Your task to perform on an android device: Show me recent news Image 0: 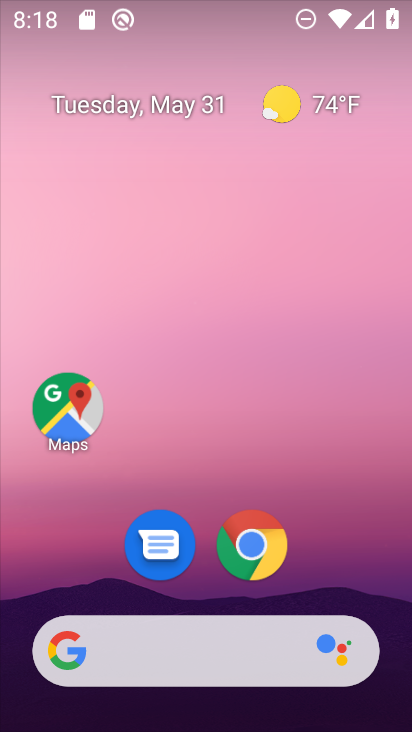
Step 0: drag from (331, 499) to (200, 32)
Your task to perform on an android device: Show me recent news Image 1: 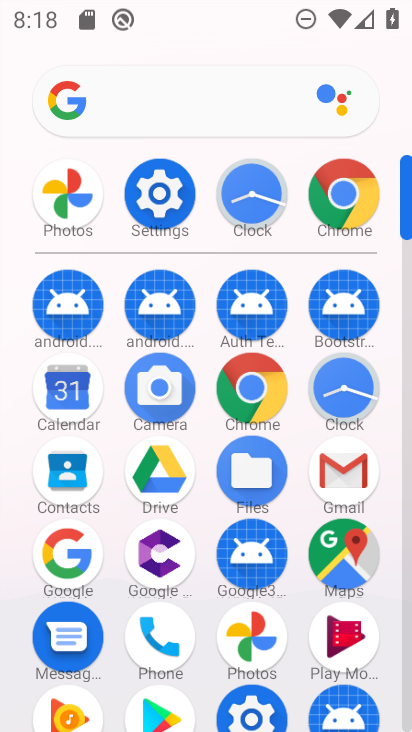
Step 1: drag from (17, 590) to (3, 217)
Your task to perform on an android device: Show me recent news Image 2: 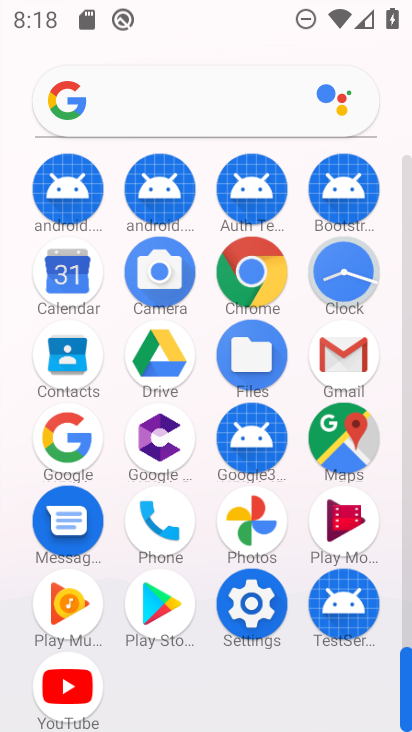
Step 2: click (248, 270)
Your task to perform on an android device: Show me recent news Image 3: 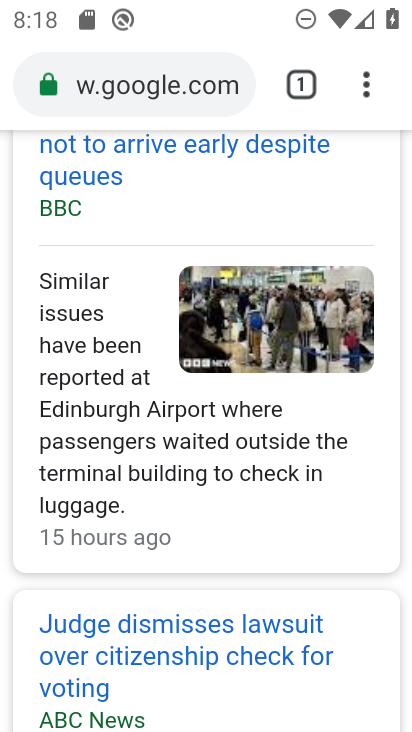
Step 3: click (169, 90)
Your task to perform on an android device: Show me recent news Image 4: 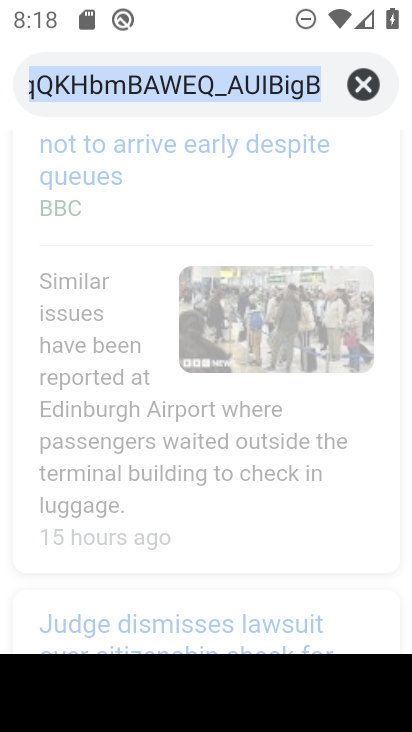
Step 4: click (370, 86)
Your task to perform on an android device: Show me recent news Image 5: 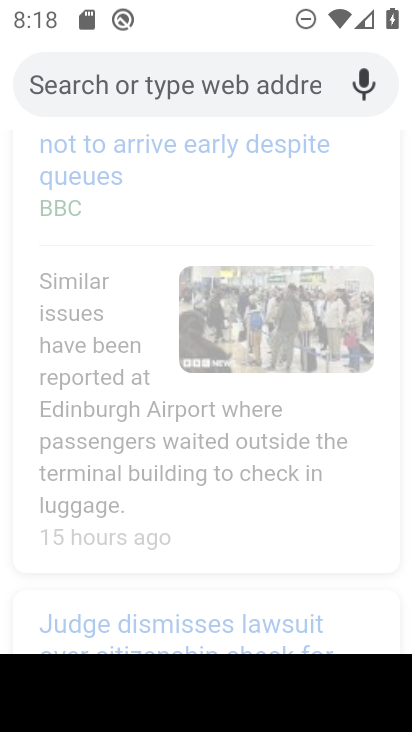
Step 5: type "Show me recent news"
Your task to perform on an android device: Show me recent news Image 6: 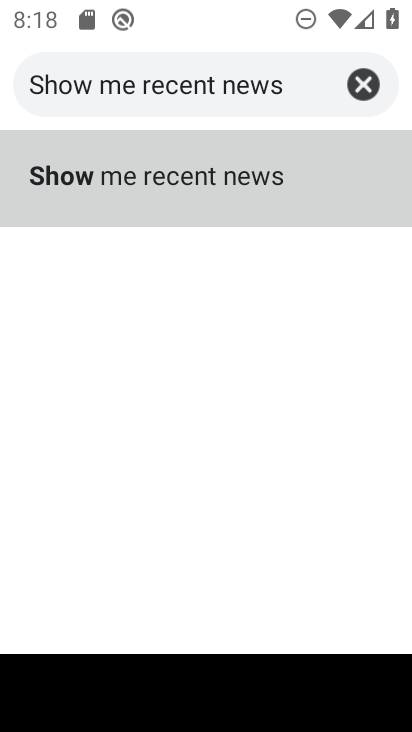
Step 6: click (255, 154)
Your task to perform on an android device: Show me recent news Image 7: 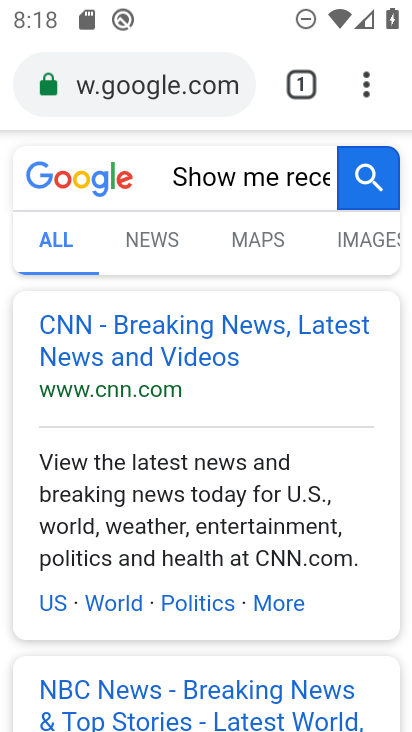
Step 7: click (159, 242)
Your task to perform on an android device: Show me recent news Image 8: 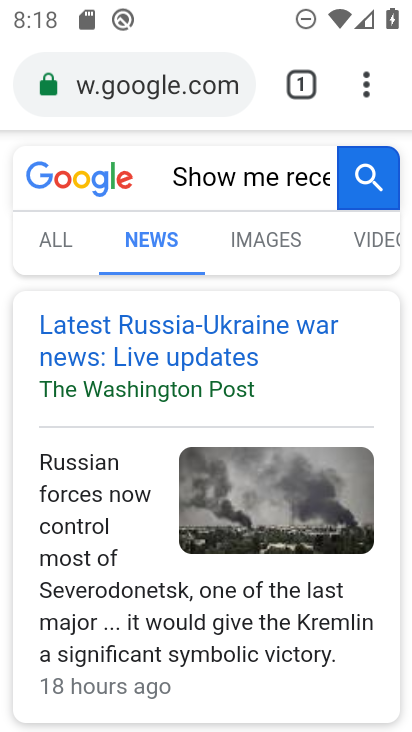
Step 8: task complete